Your task to perform on an android device: turn off improve location accuracy Image 0: 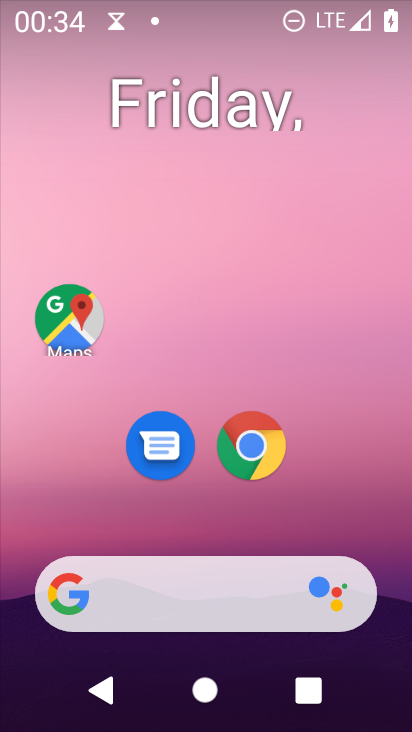
Step 0: drag from (234, 727) to (260, 116)
Your task to perform on an android device: turn off improve location accuracy Image 1: 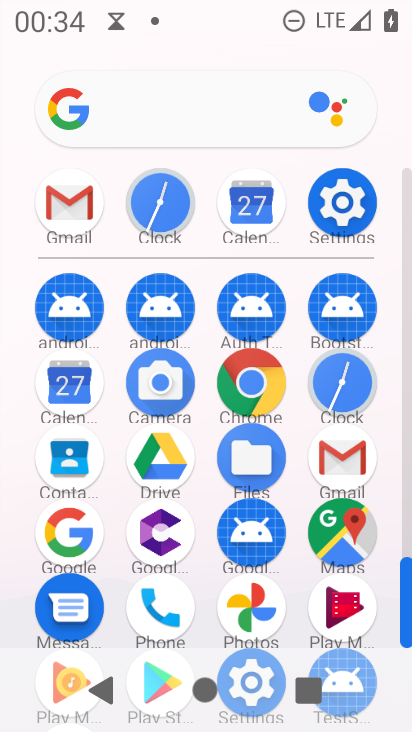
Step 1: click (346, 203)
Your task to perform on an android device: turn off improve location accuracy Image 2: 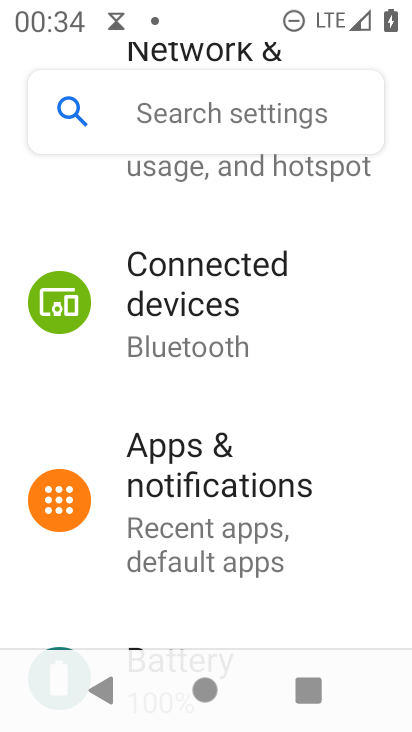
Step 2: drag from (162, 607) to (163, 247)
Your task to perform on an android device: turn off improve location accuracy Image 3: 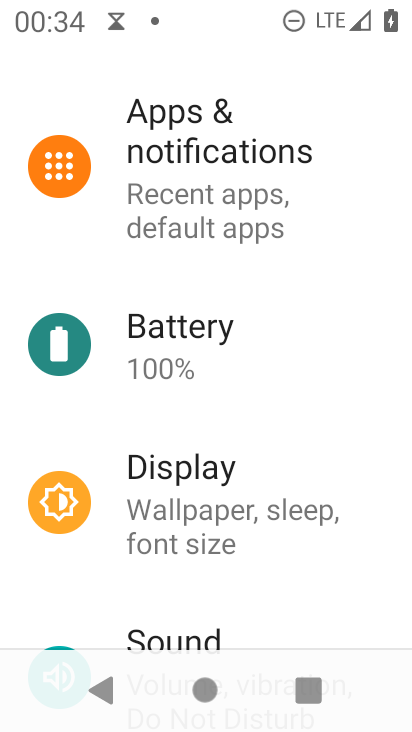
Step 3: drag from (190, 612) to (200, 212)
Your task to perform on an android device: turn off improve location accuracy Image 4: 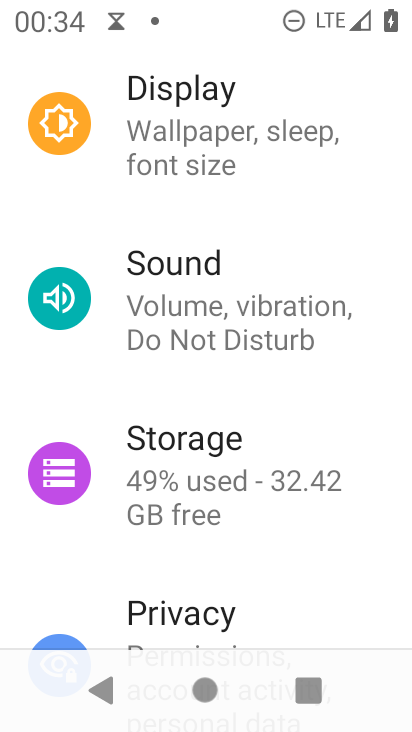
Step 4: drag from (170, 608) to (179, 238)
Your task to perform on an android device: turn off improve location accuracy Image 5: 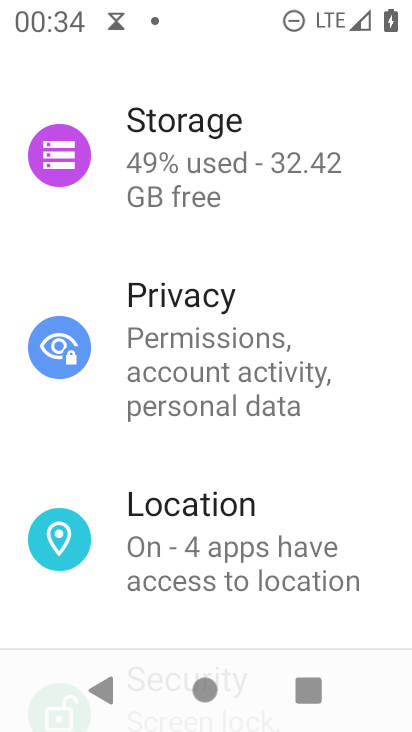
Step 5: click (159, 516)
Your task to perform on an android device: turn off improve location accuracy Image 6: 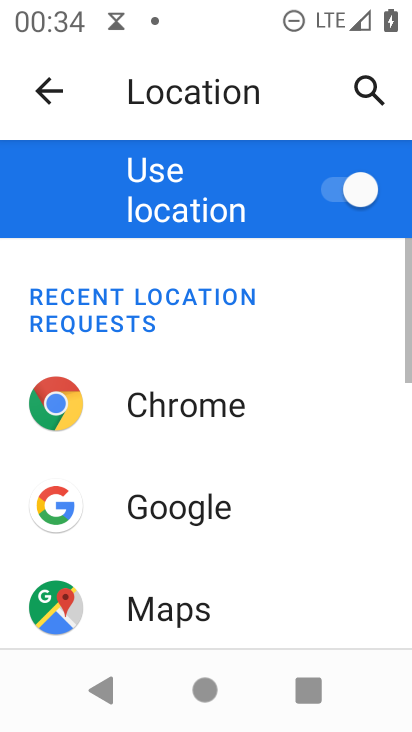
Step 6: drag from (240, 624) to (242, 217)
Your task to perform on an android device: turn off improve location accuracy Image 7: 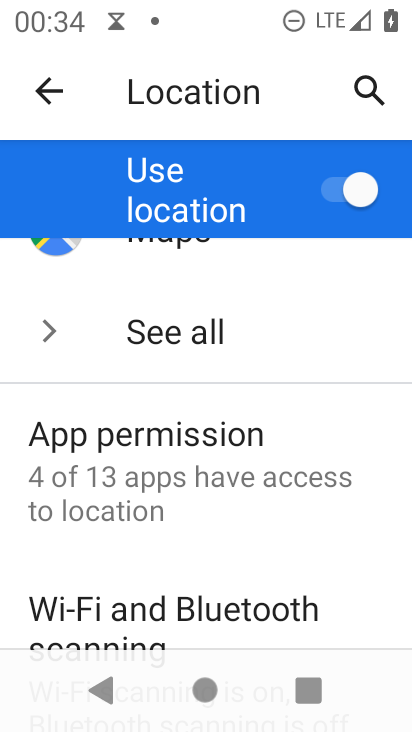
Step 7: drag from (194, 643) to (182, 221)
Your task to perform on an android device: turn off improve location accuracy Image 8: 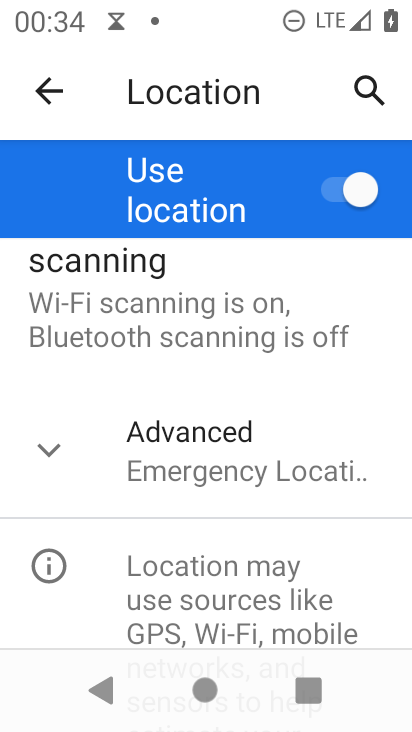
Step 8: click (177, 458)
Your task to perform on an android device: turn off improve location accuracy Image 9: 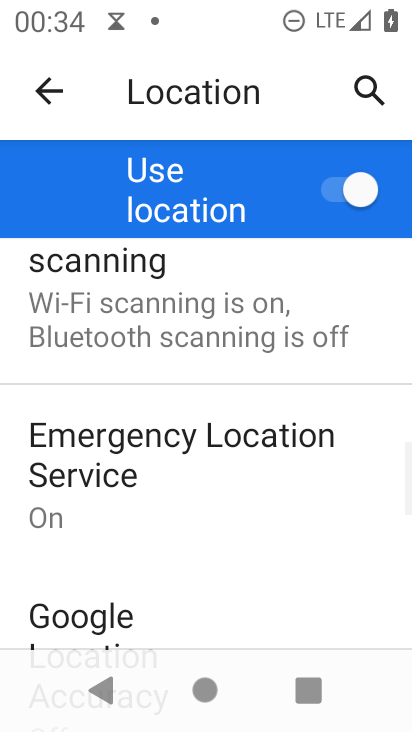
Step 9: drag from (180, 620) to (169, 398)
Your task to perform on an android device: turn off improve location accuracy Image 10: 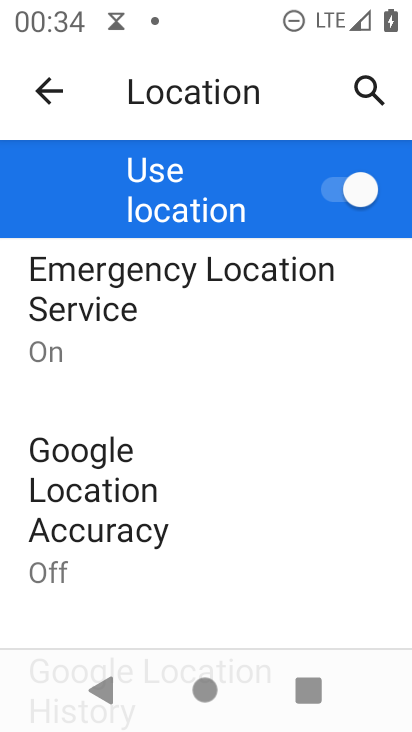
Step 10: click (115, 484)
Your task to perform on an android device: turn off improve location accuracy Image 11: 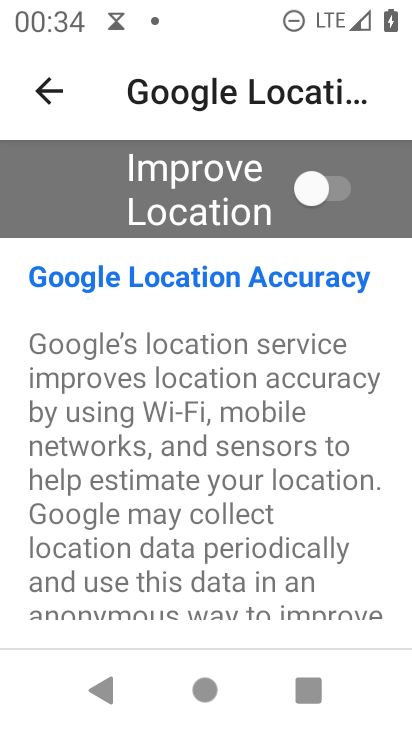
Step 11: click (341, 179)
Your task to perform on an android device: turn off improve location accuracy Image 12: 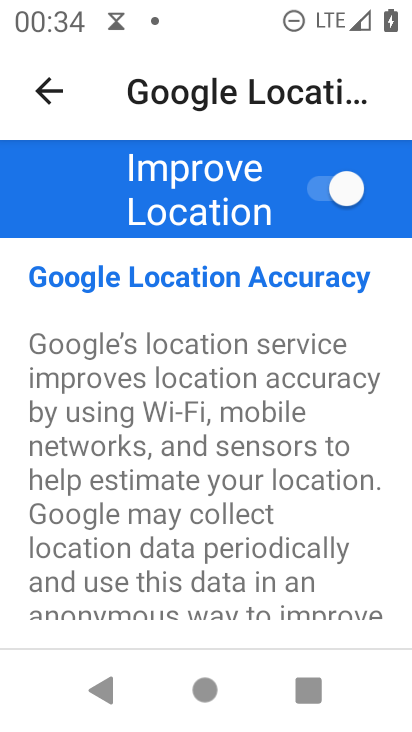
Step 12: task complete